Your task to perform on an android device: Open the stopwatch Image 0: 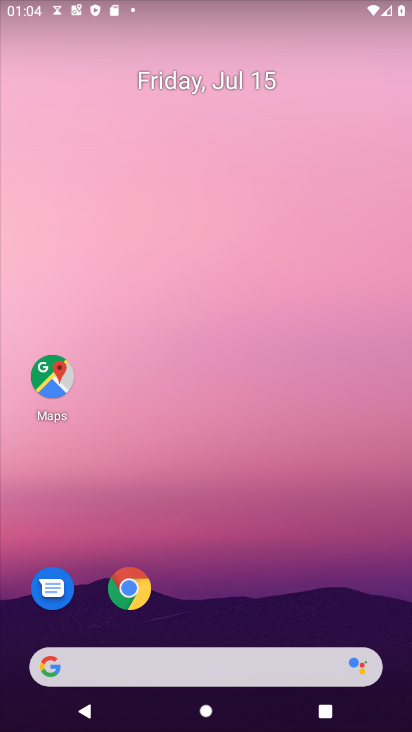
Step 0: drag from (200, 613) to (315, 1)
Your task to perform on an android device: Open the stopwatch Image 1: 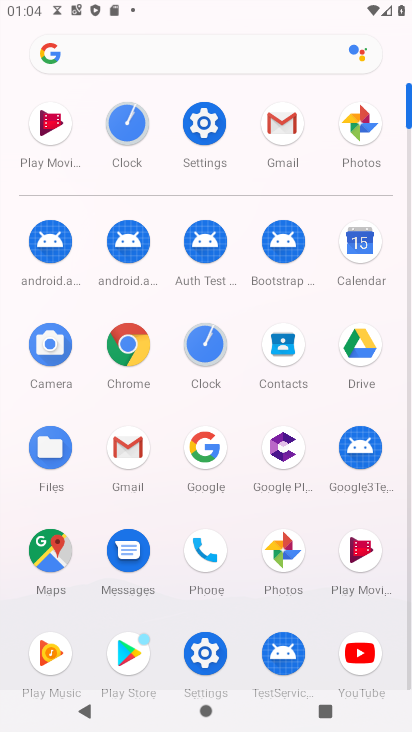
Step 1: click (206, 344)
Your task to perform on an android device: Open the stopwatch Image 2: 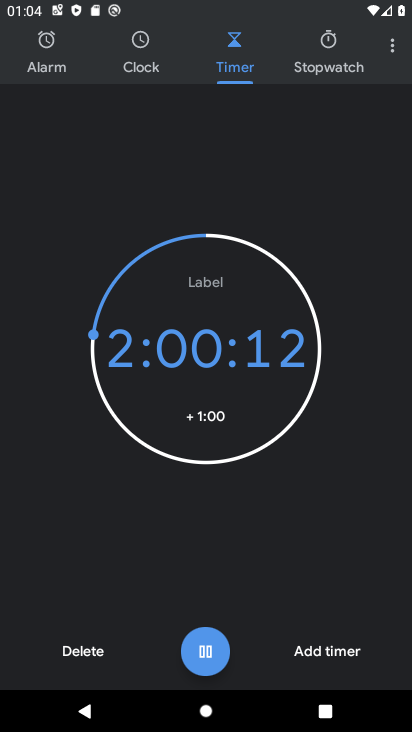
Step 2: click (325, 45)
Your task to perform on an android device: Open the stopwatch Image 3: 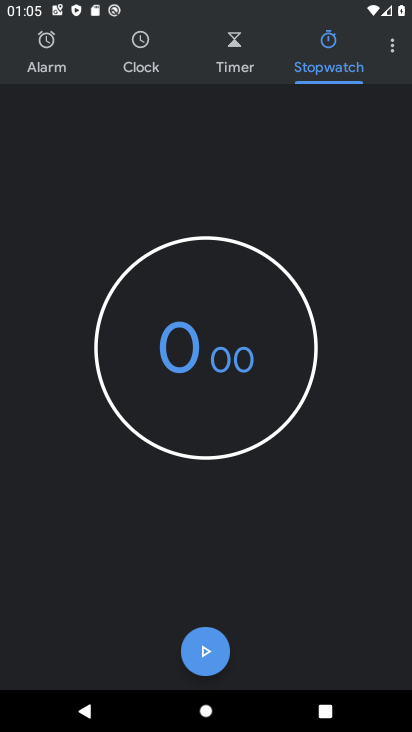
Step 3: task complete